Your task to perform on an android device: toggle notifications settings in the gmail app Image 0: 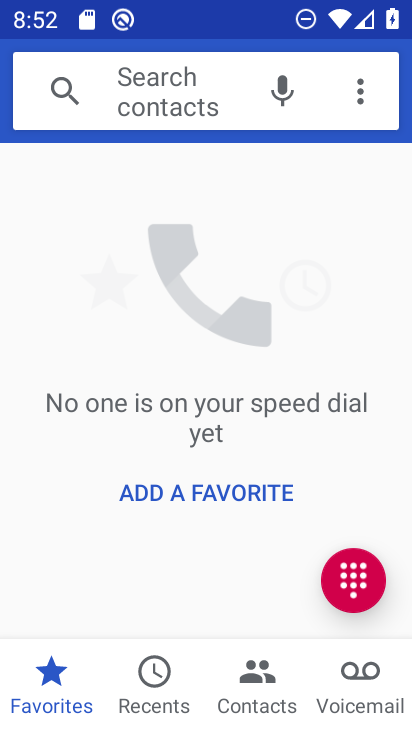
Step 0: press home button
Your task to perform on an android device: toggle notifications settings in the gmail app Image 1: 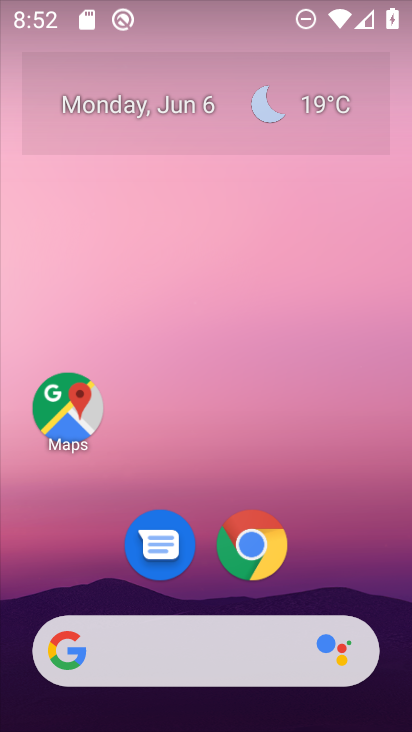
Step 1: drag from (205, 512) to (264, 114)
Your task to perform on an android device: toggle notifications settings in the gmail app Image 2: 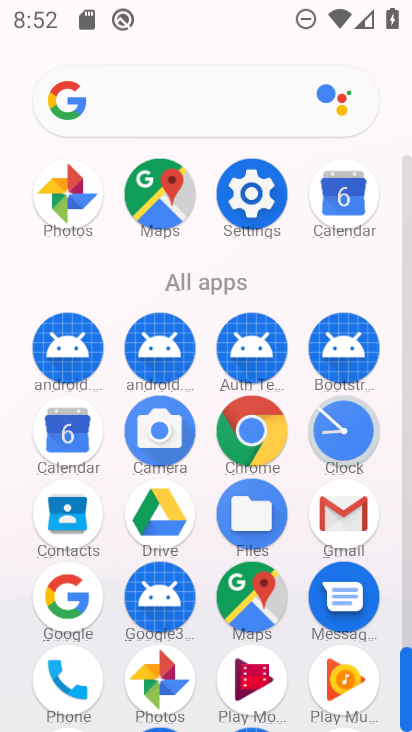
Step 2: click (317, 513)
Your task to perform on an android device: toggle notifications settings in the gmail app Image 3: 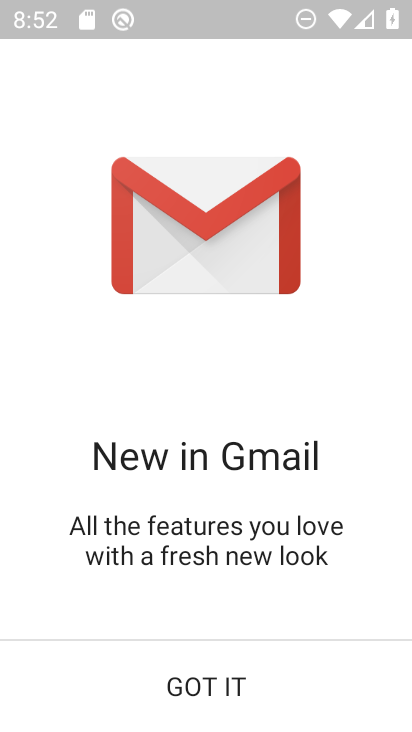
Step 3: click (219, 727)
Your task to perform on an android device: toggle notifications settings in the gmail app Image 4: 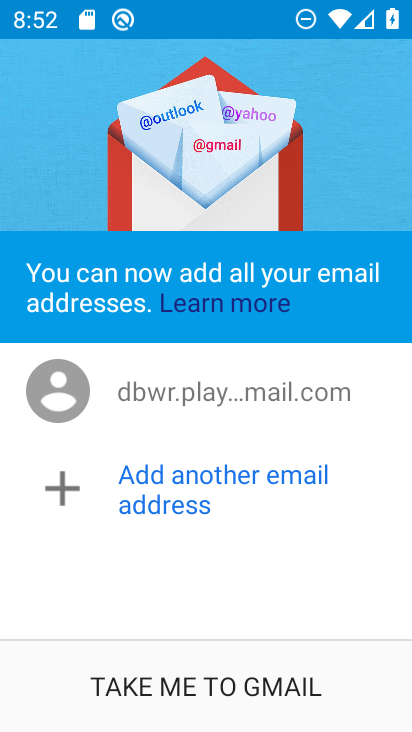
Step 4: click (224, 684)
Your task to perform on an android device: toggle notifications settings in the gmail app Image 5: 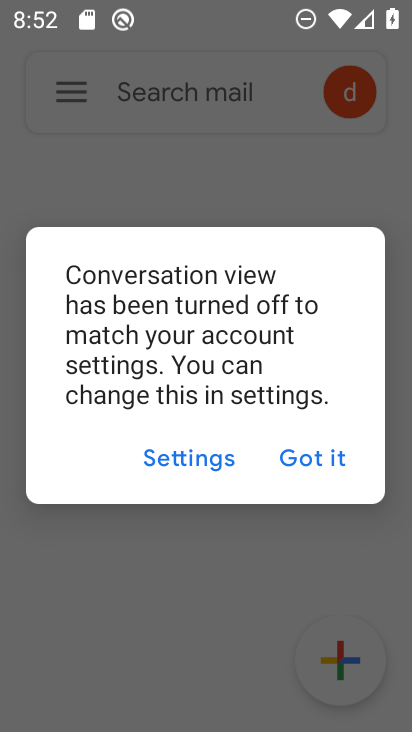
Step 5: click (204, 454)
Your task to perform on an android device: toggle notifications settings in the gmail app Image 6: 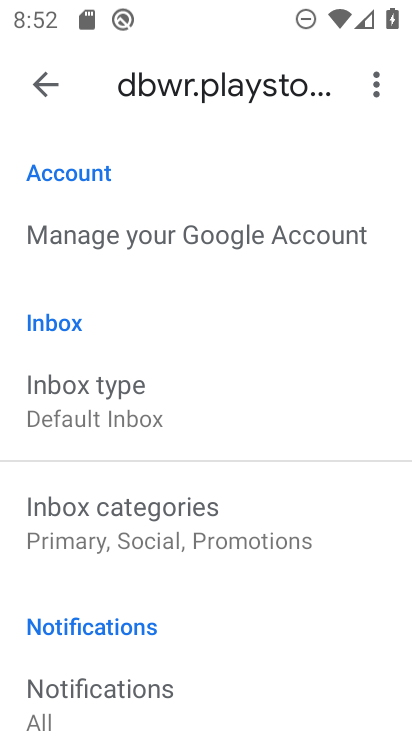
Step 6: click (31, 90)
Your task to perform on an android device: toggle notifications settings in the gmail app Image 7: 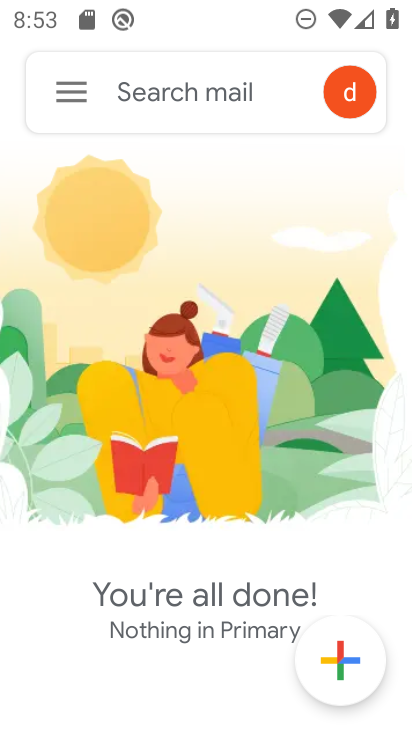
Step 7: click (52, 91)
Your task to perform on an android device: toggle notifications settings in the gmail app Image 8: 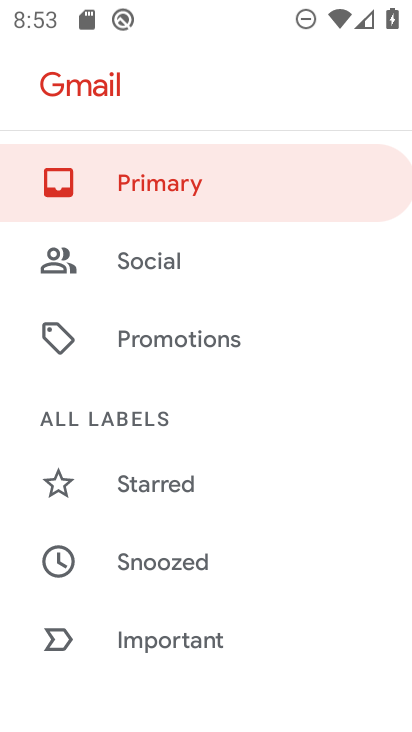
Step 8: drag from (151, 550) to (210, 193)
Your task to perform on an android device: toggle notifications settings in the gmail app Image 9: 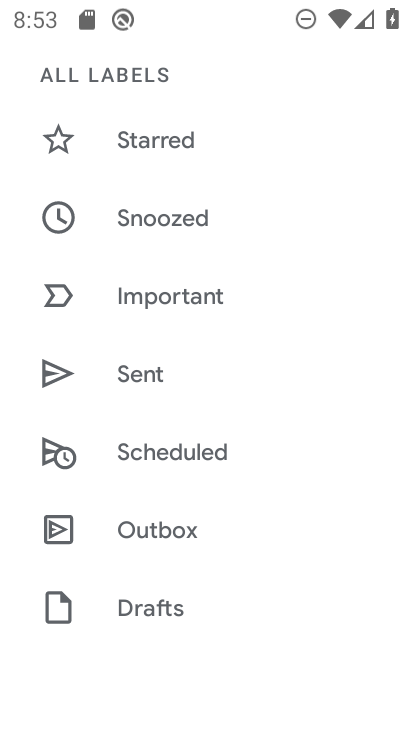
Step 9: drag from (186, 541) to (231, 252)
Your task to perform on an android device: toggle notifications settings in the gmail app Image 10: 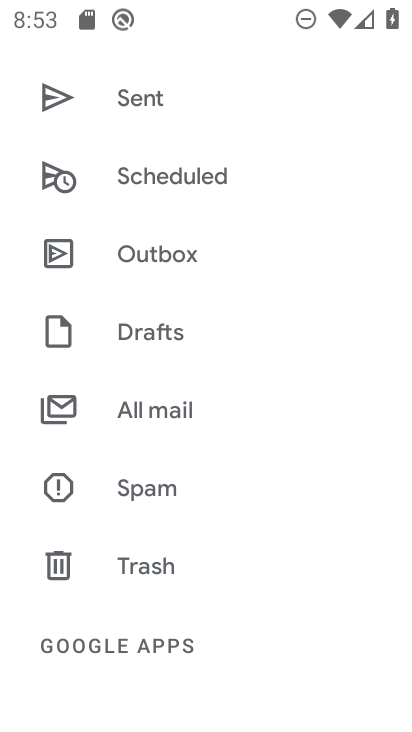
Step 10: drag from (157, 605) to (206, 265)
Your task to perform on an android device: toggle notifications settings in the gmail app Image 11: 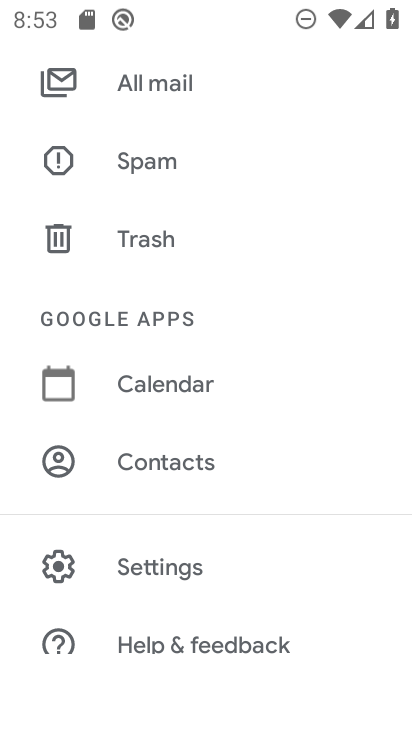
Step 11: click (170, 580)
Your task to perform on an android device: toggle notifications settings in the gmail app Image 12: 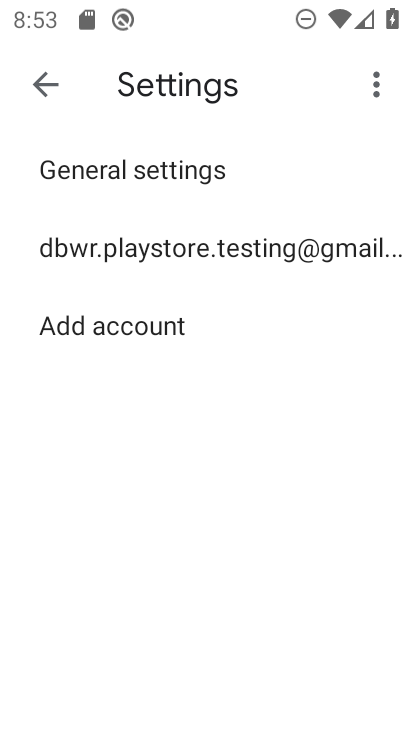
Step 12: click (165, 176)
Your task to perform on an android device: toggle notifications settings in the gmail app Image 13: 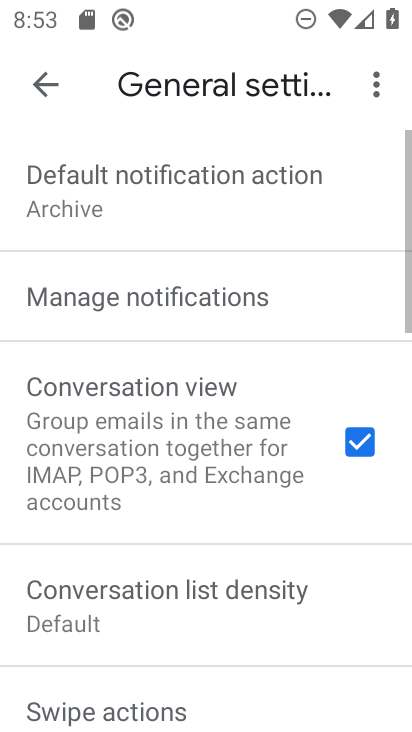
Step 13: click (178, 304)
Your task to perform on an android device: toggle notifications settings in the gmail app Image 14: 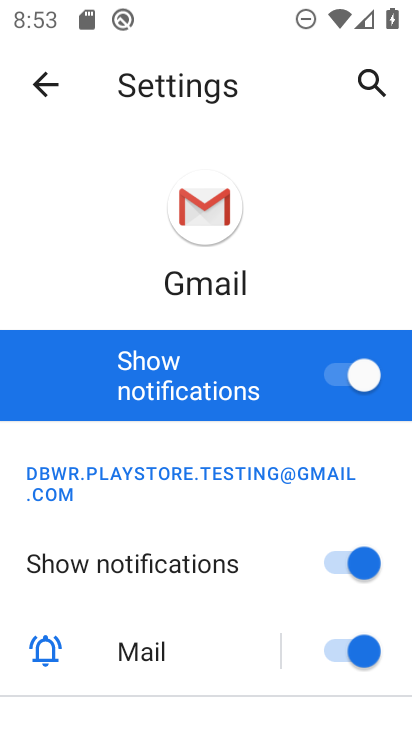
Step 14: click (338, 380)
Your task to perform on an android device: toggle notifications settings in the gmail app Image 15: 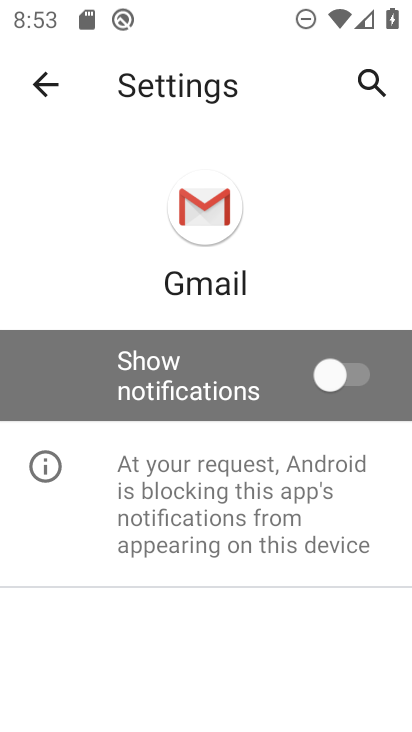
Step 15: task complete